Your task to perform on an android device: turn on javascript in the chrome app Image 0: 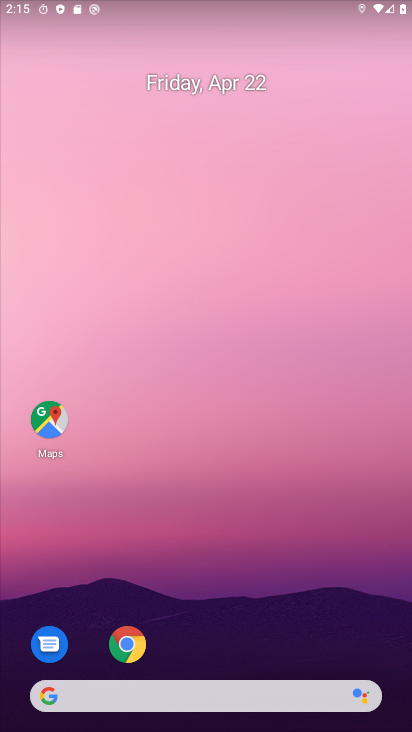
Step 0: drag from (189, 417) to (208, 307)
Your task to perform on an android device: turn on javascript in the chrome app Image 1: 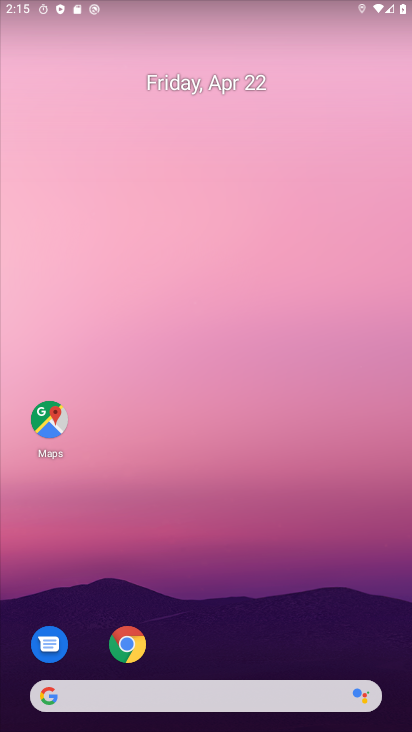
Step 1: drag from (197, 650) to (309, 210)
Your task to perform on an android device: turn on javascript in the chrome app Image 2: 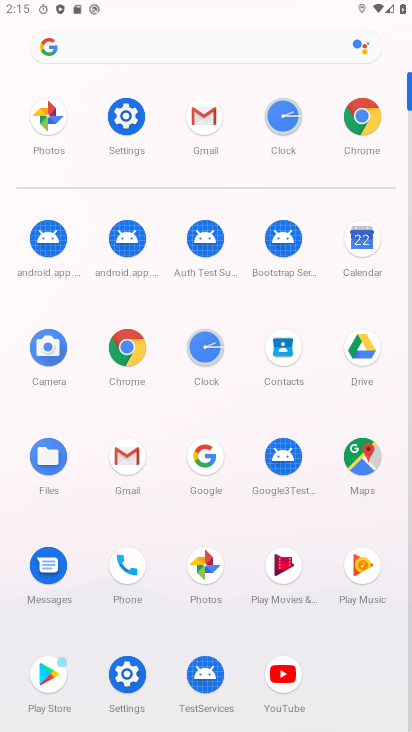
Step 2: click (357, 147)
Your task to perform on an android device: turn on javascript in the chrome app Image 3: 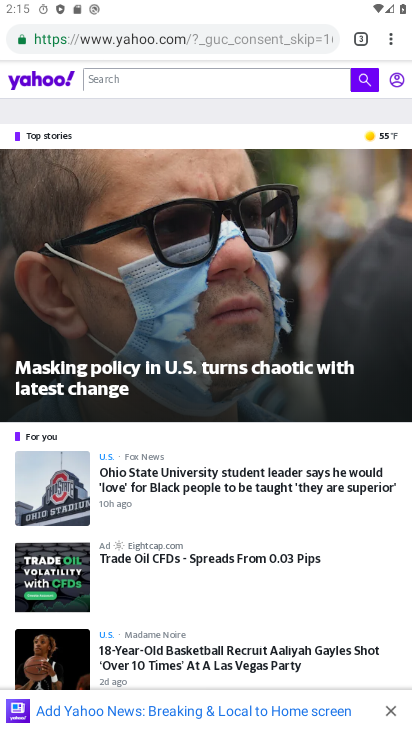
Step 3: click (391, 40)
Your task to perform on an android device: turn on javascript in the chrome app Image 4: 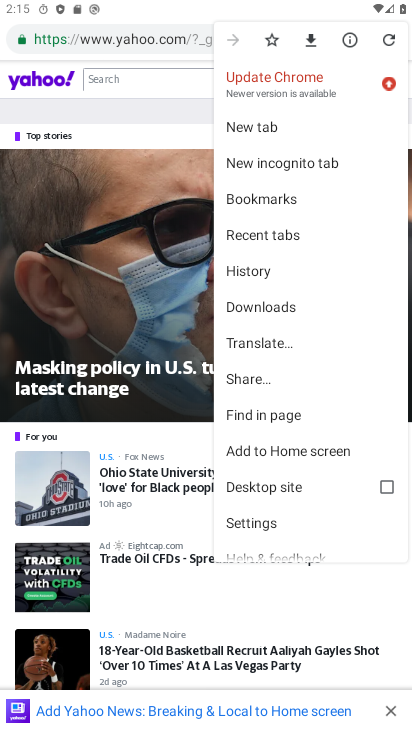
Step 4: click (264, 523)
Your task to perform on an android device: turn on javascript in the chrome app Image 5: 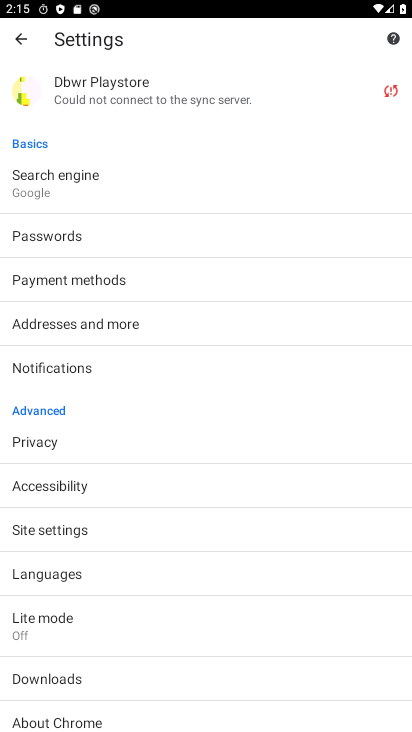
Step 5: click (51, 532)
Your task to perform on an android device: turn on javascript in the chrome app Image 6: 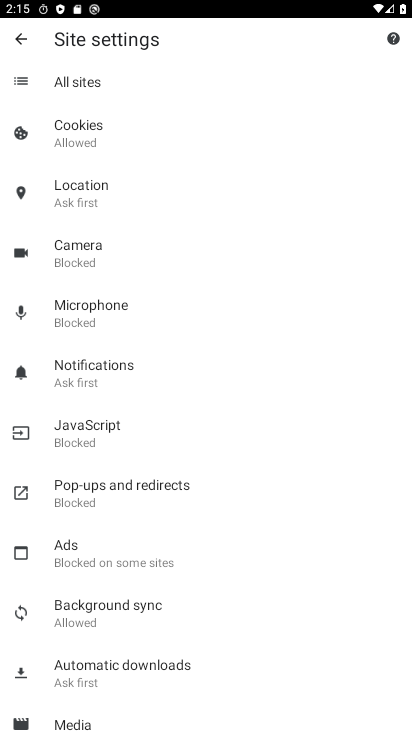
Step 6: click (107, 448)
Your task to perform on an android device: turn on javascript in the chrome app Image 7: 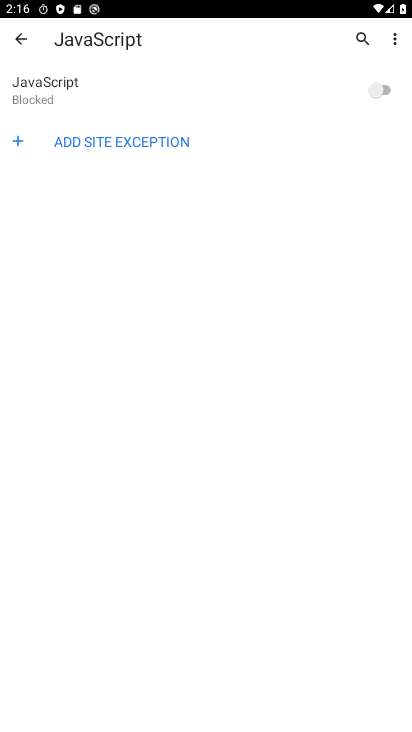
Step 7: click (379, 92)
Your task to perform on an android device: turn on javascript in the chrome app Image 8: 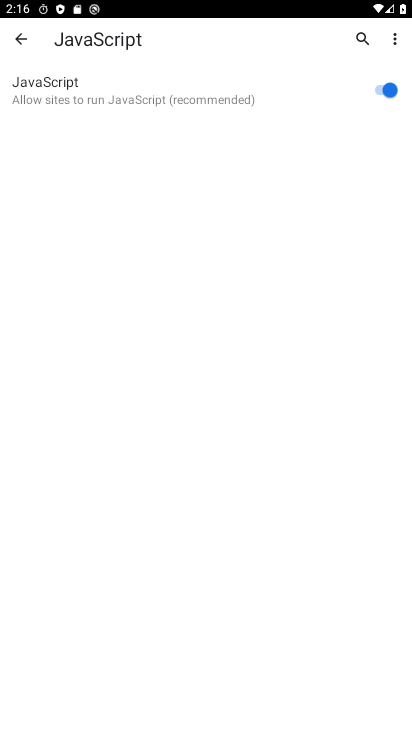
Step 8: task complete